Your task to perform on an android device: turn off airplane mode Image 0: 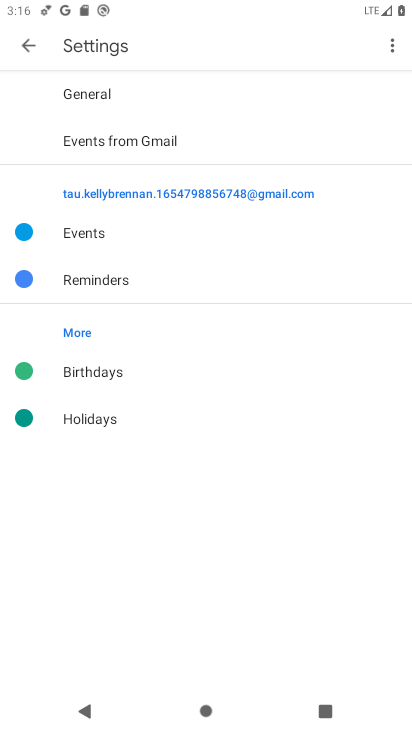
Step 0: press home button
Your task to perform on an android device: turn off airplane mode Image 1: 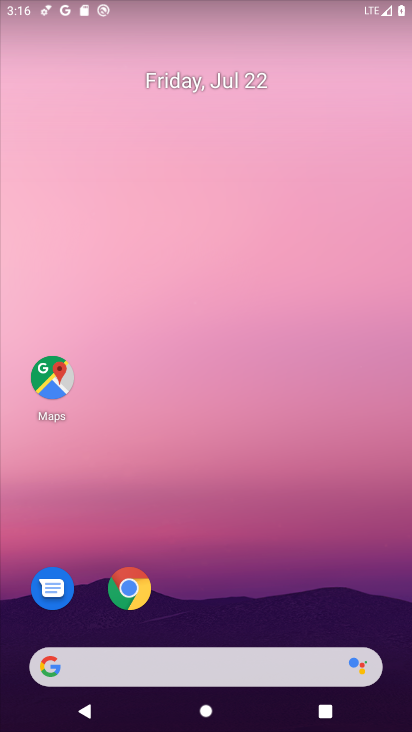
Step 1: task complete